Your task to perform on an android device: Clear all items from cart on target. Search for "logitech g903" on target, select the first entry, and add it to the cart. Image 0: 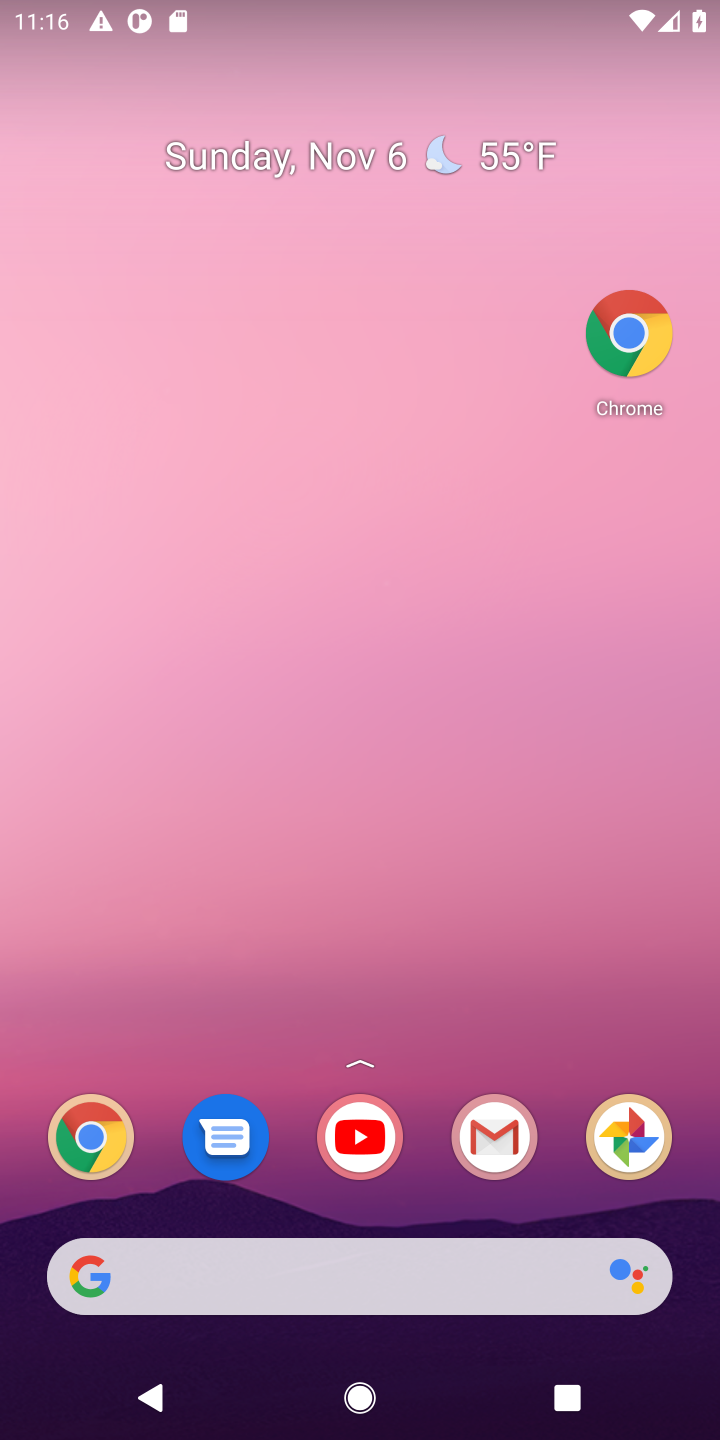
Step 0: drag from (406, 900) to (265, 92)
Your task to perform on an android device: Clear all items from cart on target. Search for "logitech g903" on target, select the first entry, and add it to the cart. Image 1: 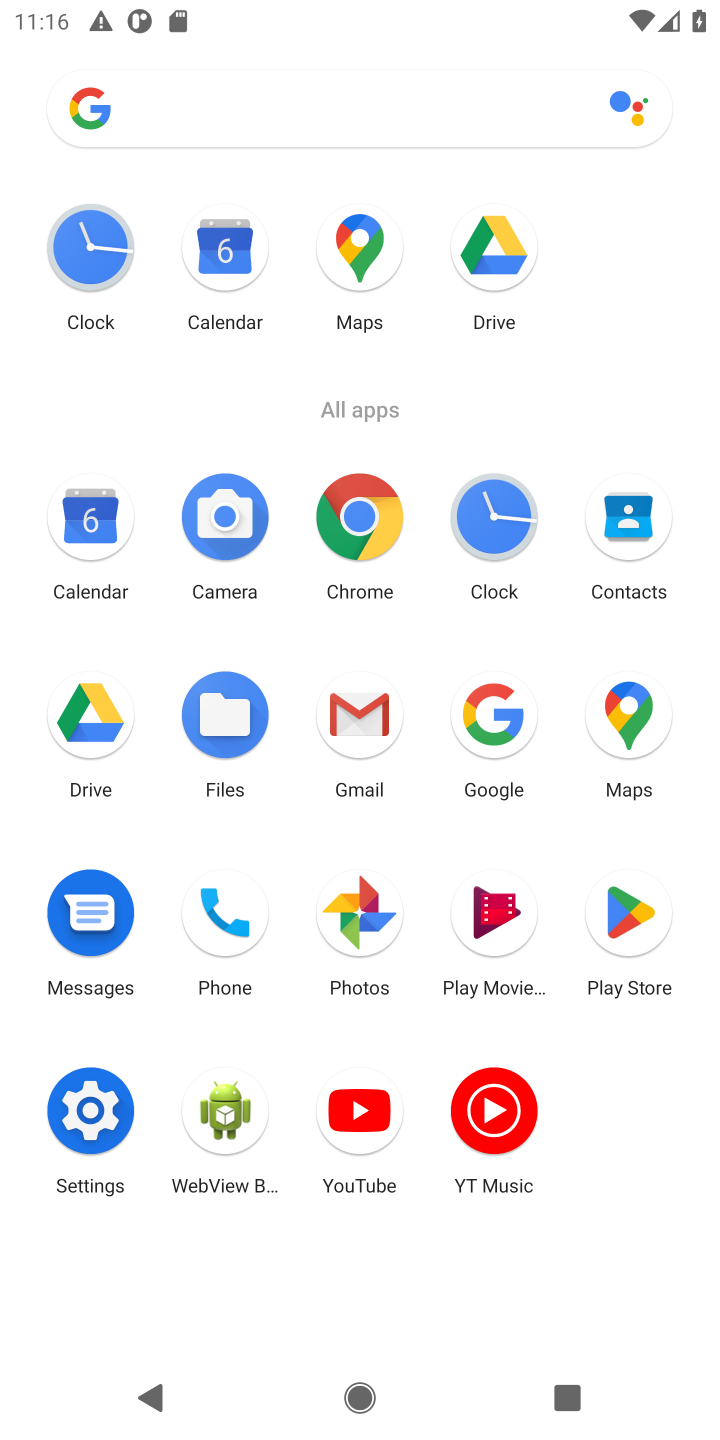
Step 1: click (356, 514)
Your task to perform on an android device: Clear all items from cart on target. Search for "logitech g903" on target, select the first entry, and add it to the cart. Image 2: 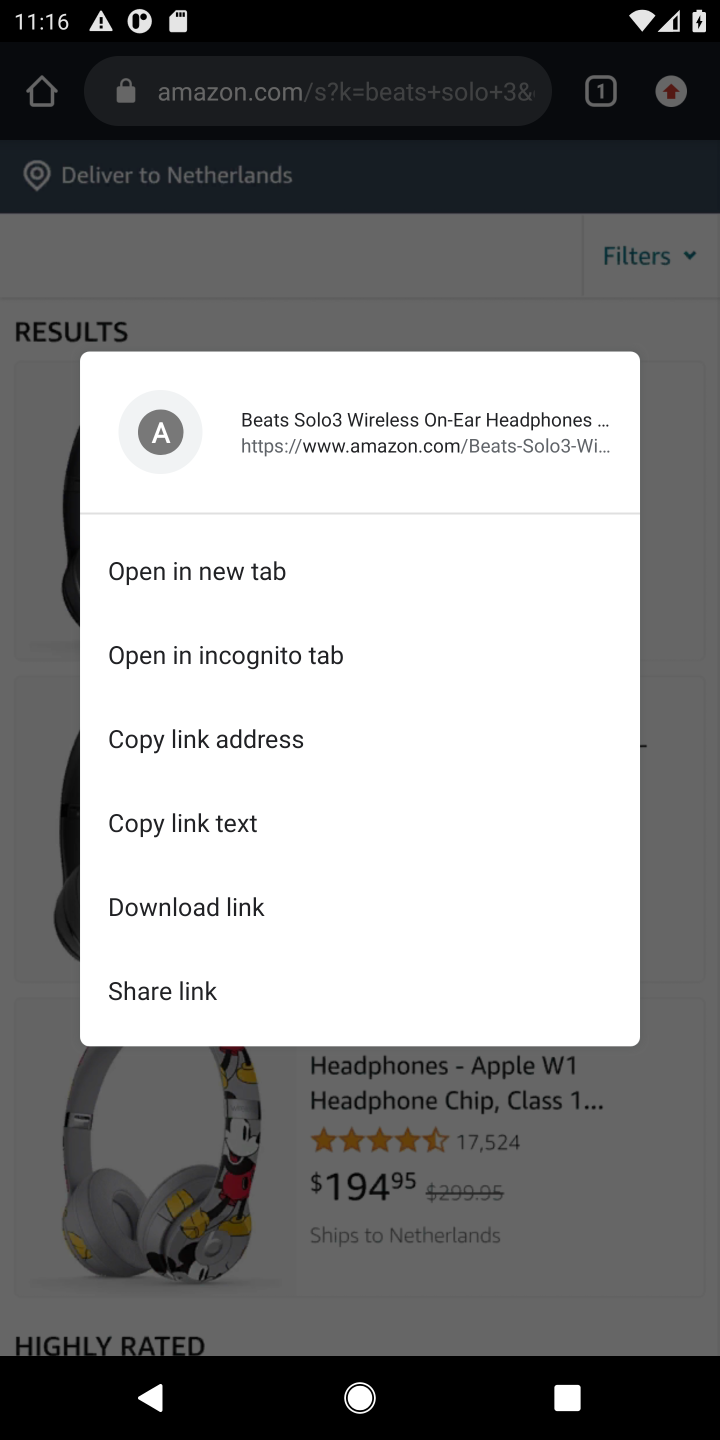
Step 2: click (367, 108)
Your task to perform on an android device: Clear all items from cart on target. Search for "logitech g903" on target, select the first entry, and add it to the cart. Image 3: 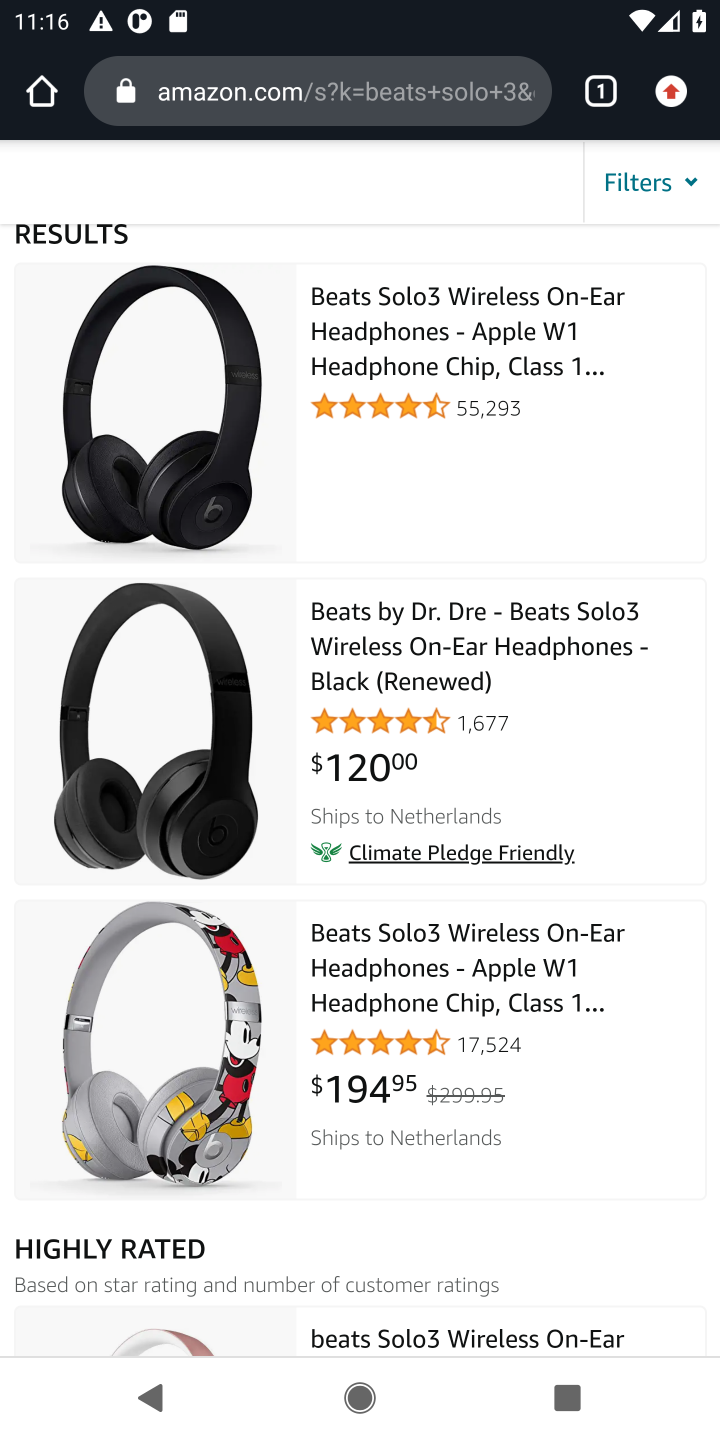
Step 3: click (367, 108)
Your task to perform on an android device: Clear all items from cart on target. Search for "logitech g903" on target, select the first entry, and add it to the cart. Image 4: 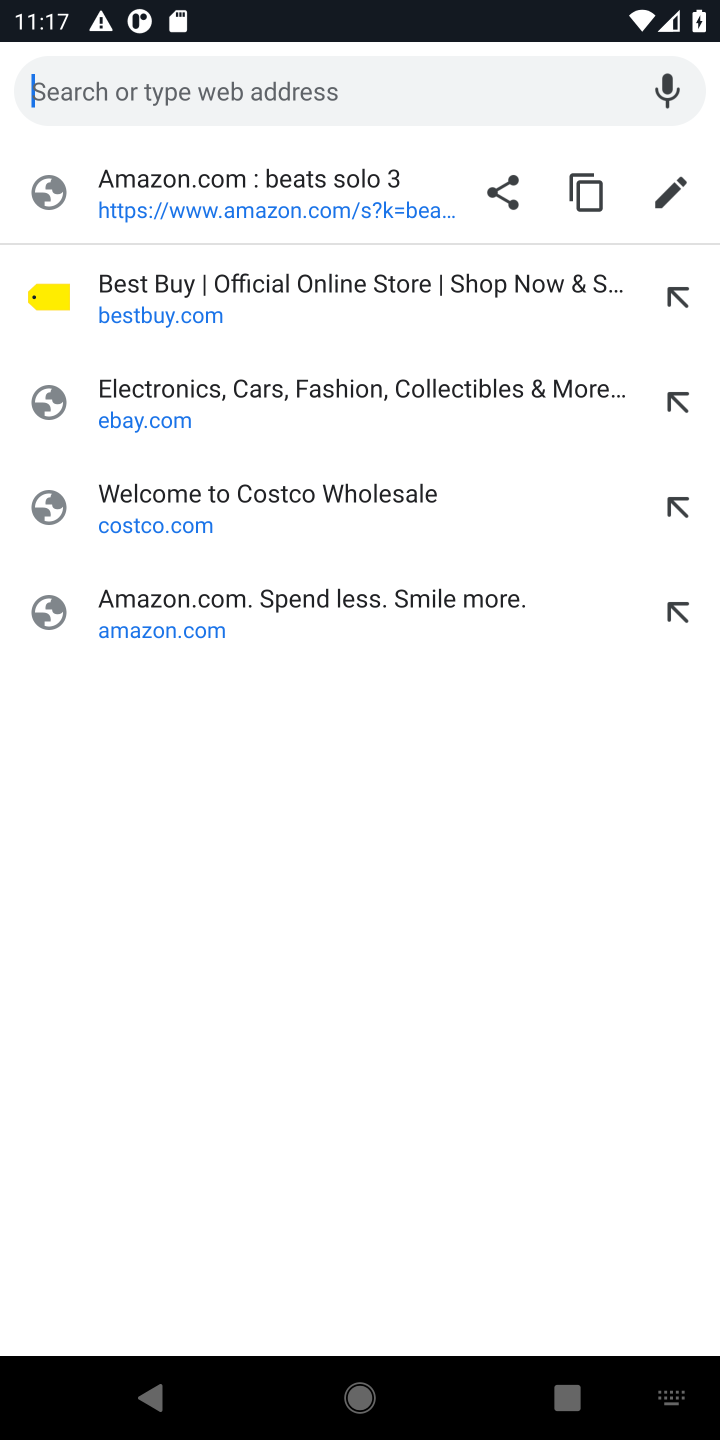
Step 4: type "target.com"
Your task to perform on an android device: Clear all items from cart on target. Search for "logitech g903" on target, select the first entry, and add it to the cart. Image 5: 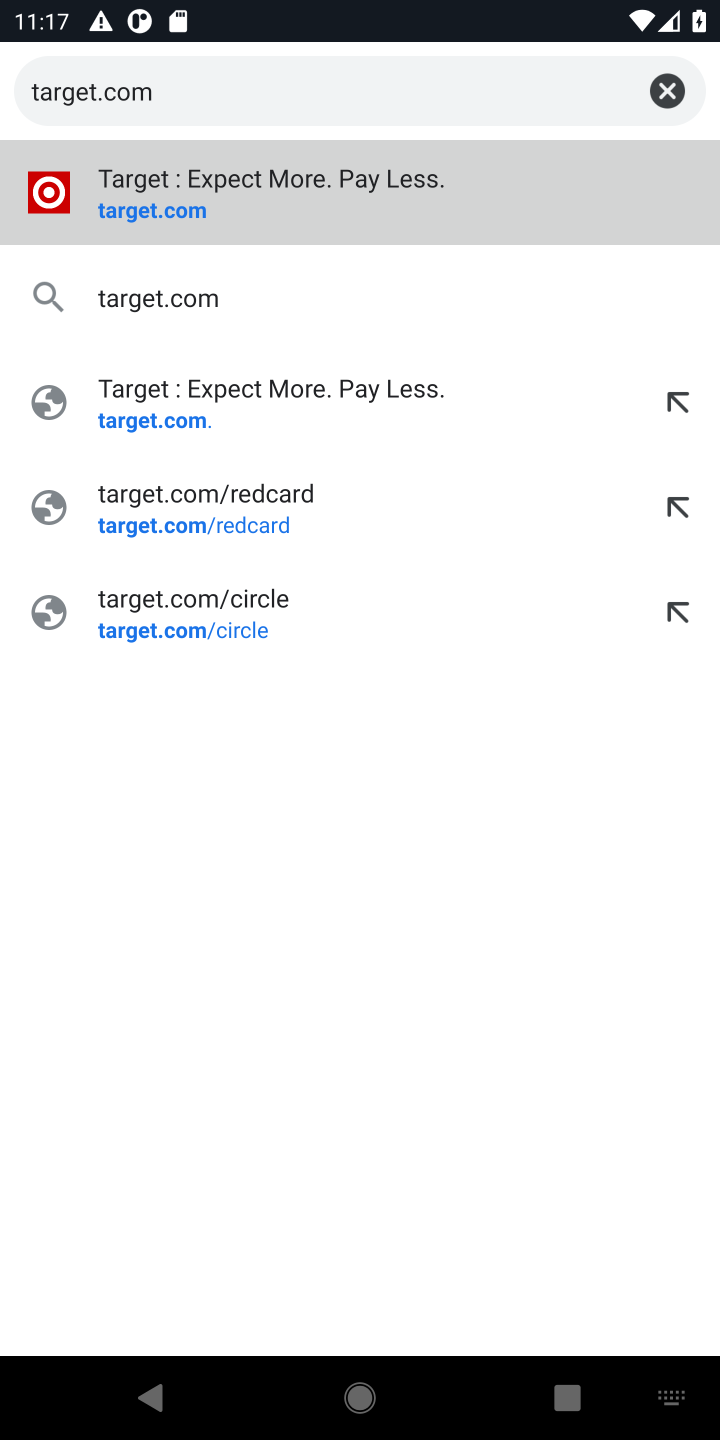
Step 5: press enter
Your task to perform on an android device: Clear all items from cart on target. Search for "logitech g903" on target, select the first entry, and add it to the cart. Image 6: 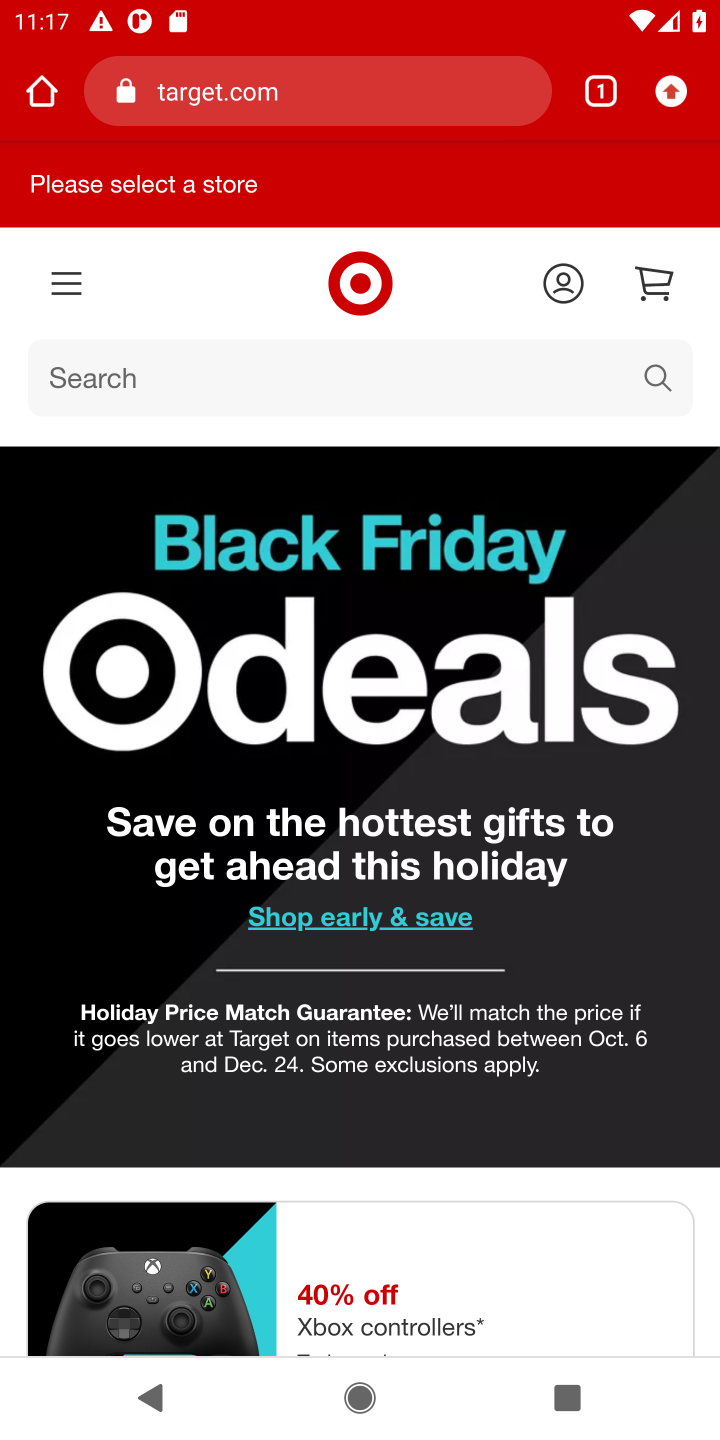
Step 6: click (403, 375)
Your task to perform on an android device: Clear all items from cart on target. Search for "logitech g903" on target, select the first entry, and add it to the cart. Image 7: 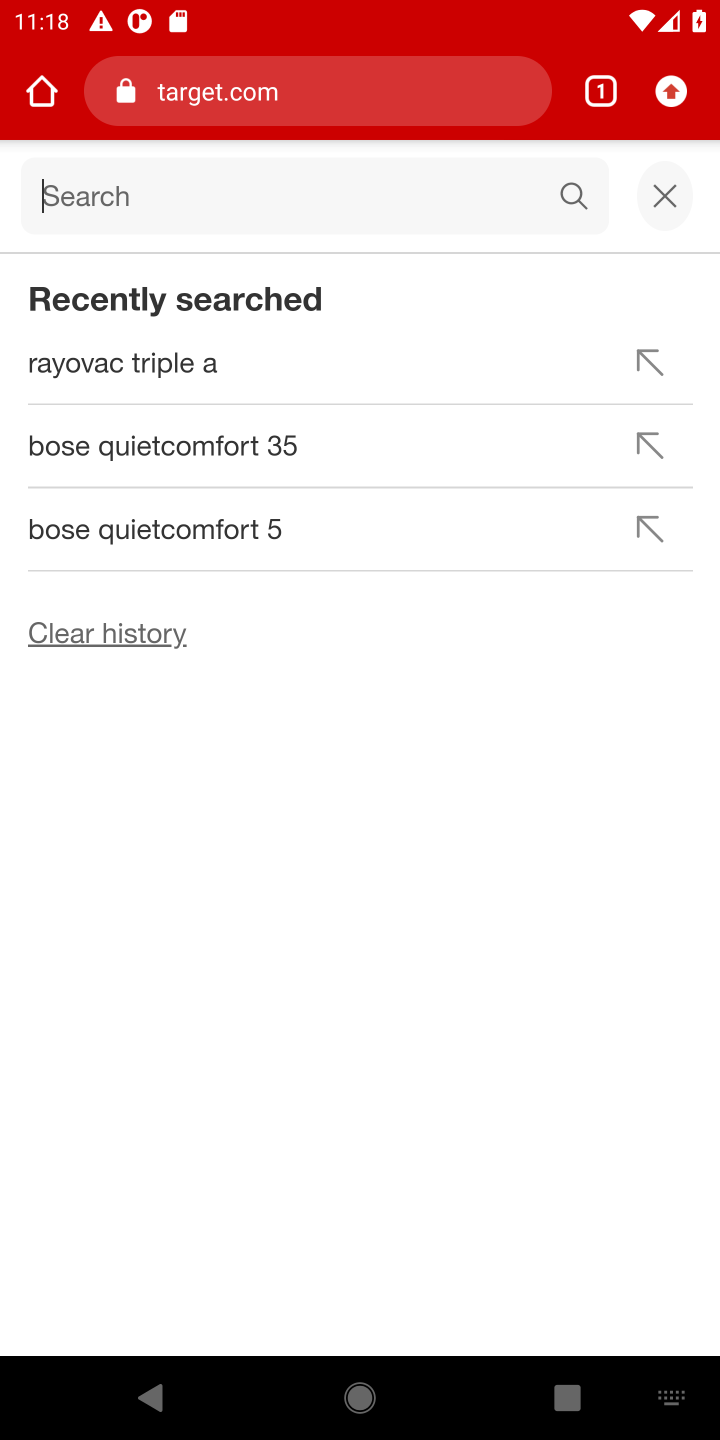
Step 7: click (666, 207)
Your task to perform on an android device: Clear all items from cart on target. Search for "logitech g903" on target, select the first entry, and add it to the cart. Image 8: 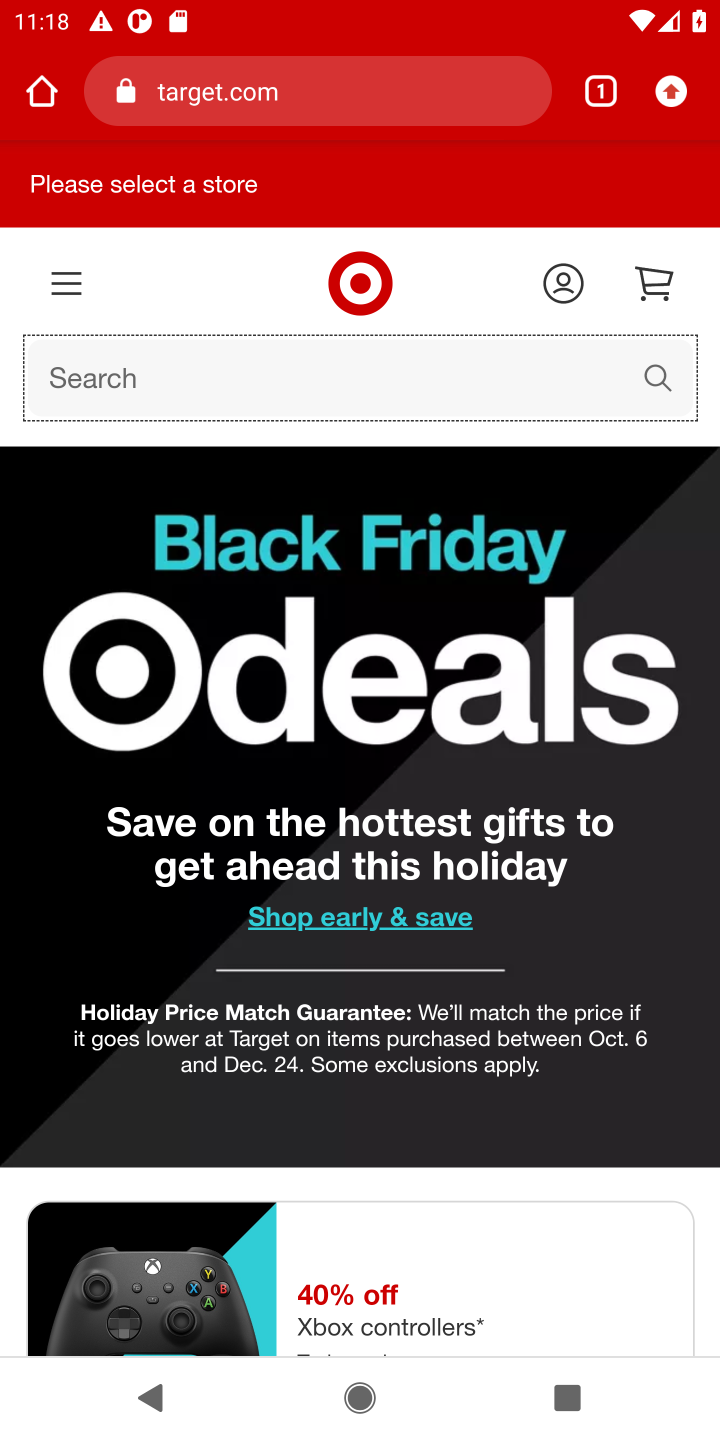
Step 8: click (658, 269)
Your task to perform on an android device: Clear all items from cart on target. Search for "logitech g903" on target, select the first entry, and add it to the cart. Image 9: 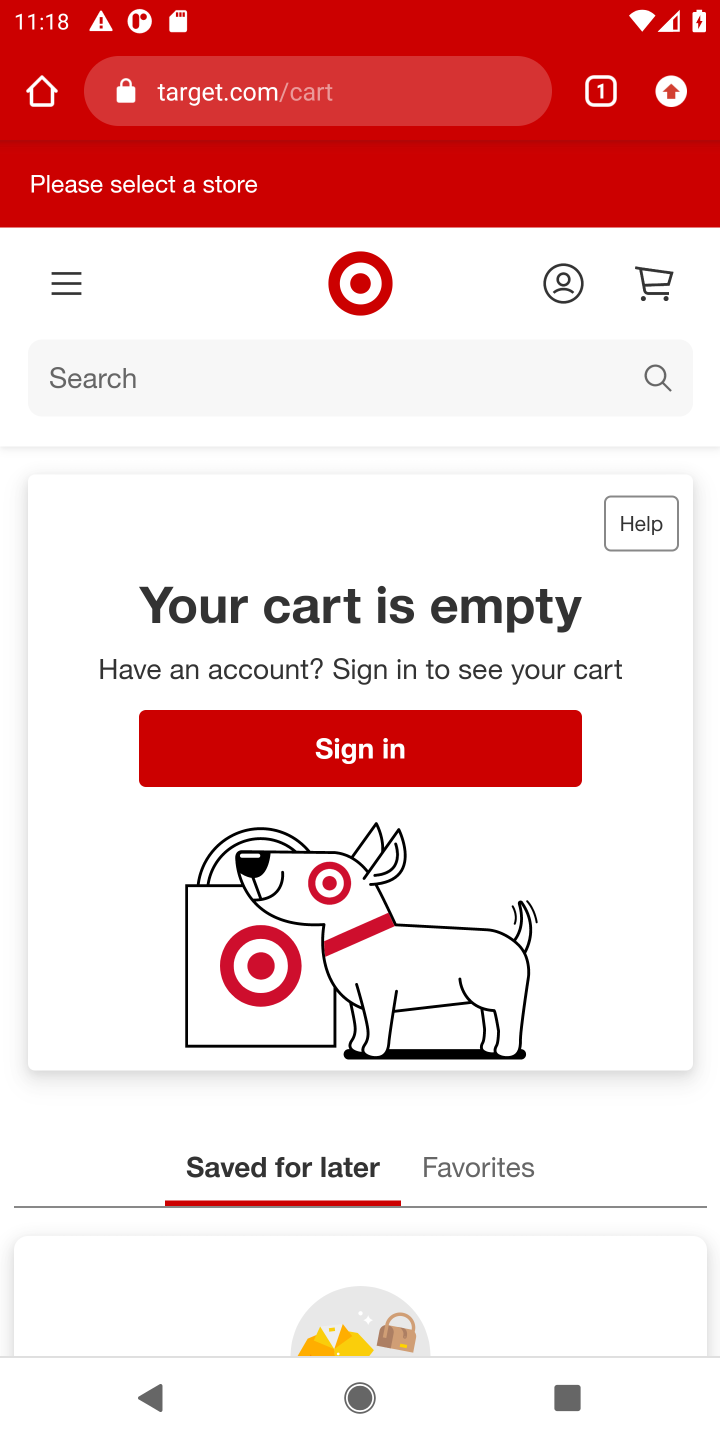
Step 9: click (211, 389)
Your task to perform on an android device: Clear all items from cart on target. Search for "logitech g903" on target, select the first entry, and add it to the cart. Image 10: 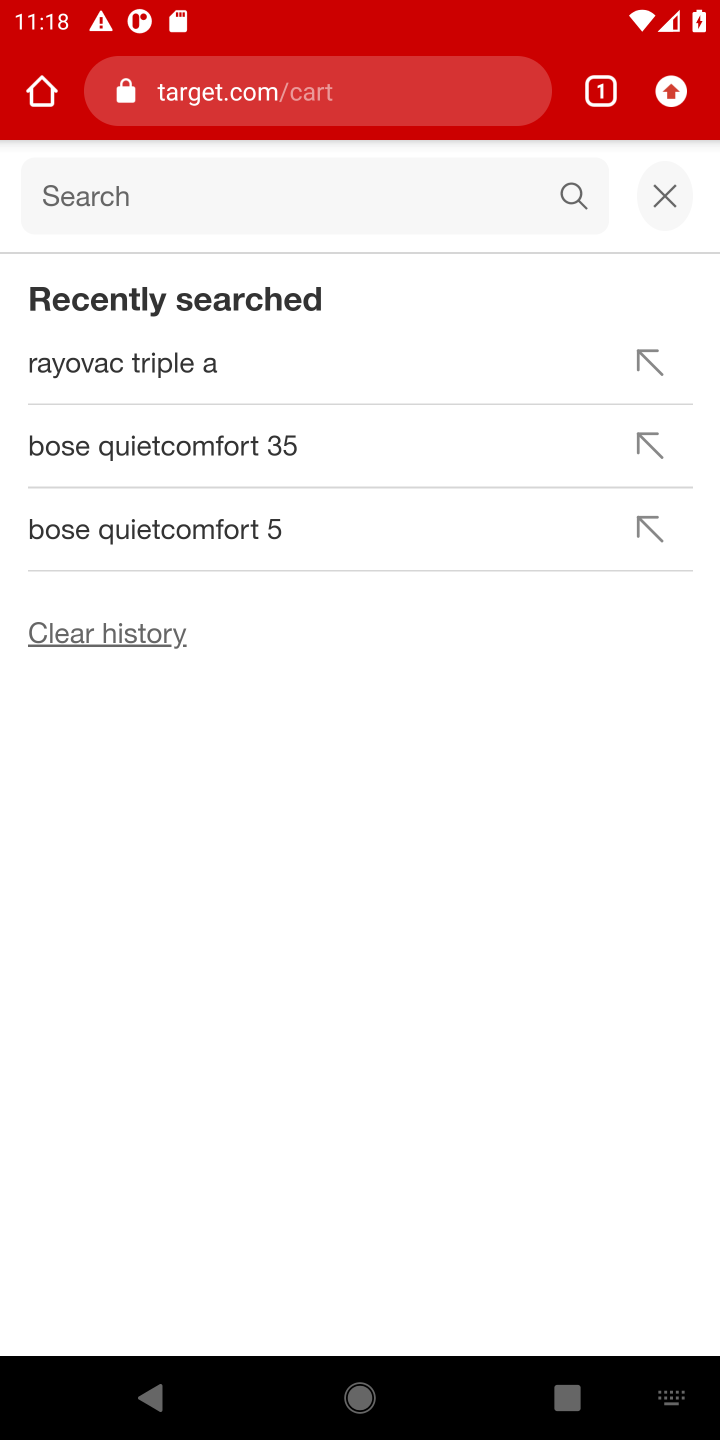
Step 10: type "logitech g903"
Your task to perform on an android device: Clear all items from cart on target. Search for "logitech g903" on target, select the first entry, and add it to the cart. Image 11: 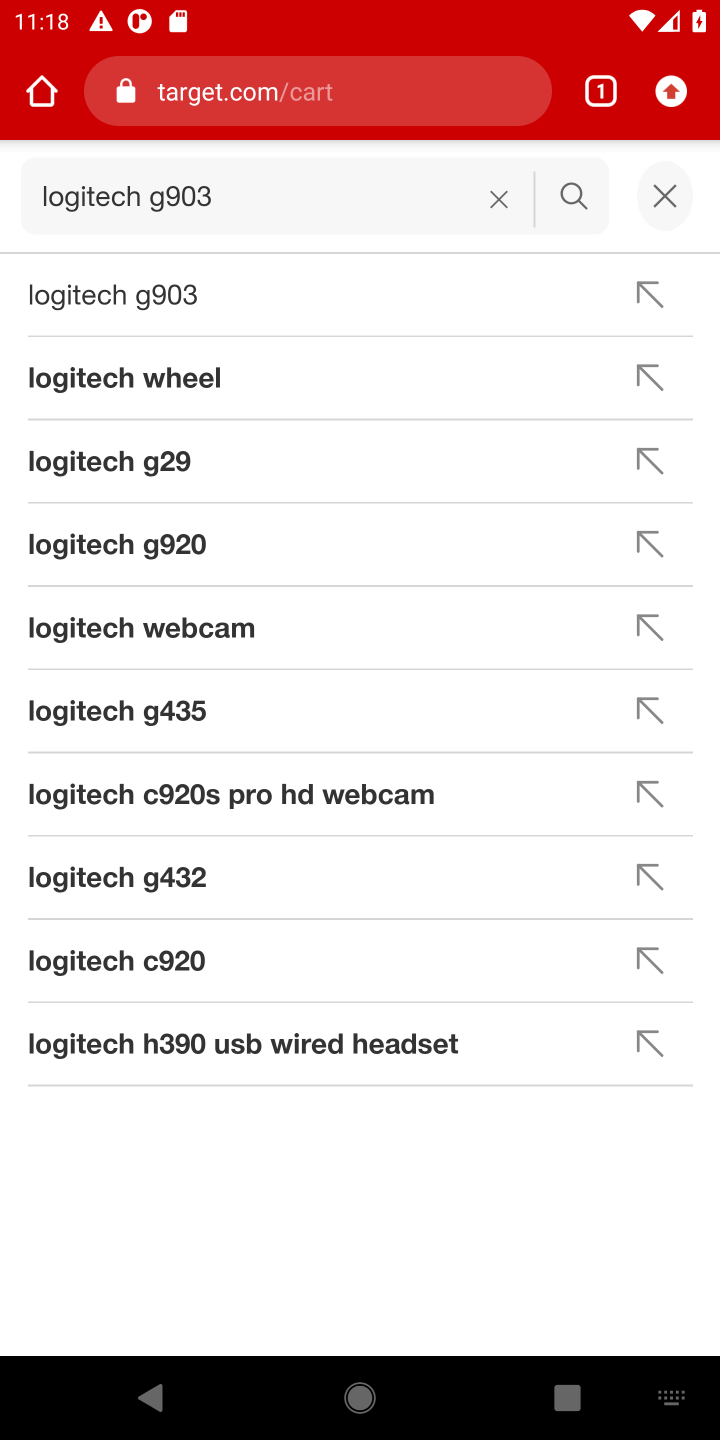
Step 11: press enter
Your task to perform on an android device: Clear all items from cart on target. Search for "logitech g903" on target, select the first entry, and add it to the cart. Image 12: 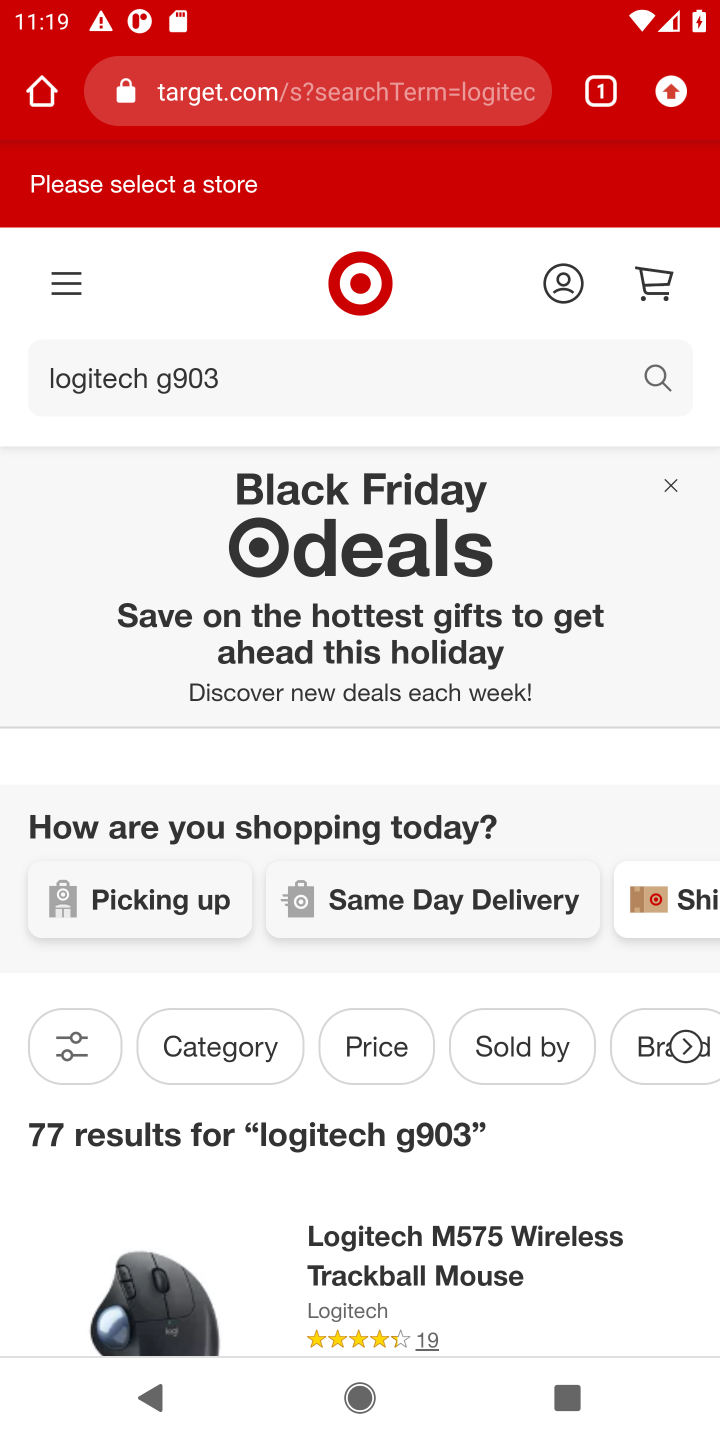
Step 12: task complete